Your task to perform on an android device: find photos in the google photos app Image 0: 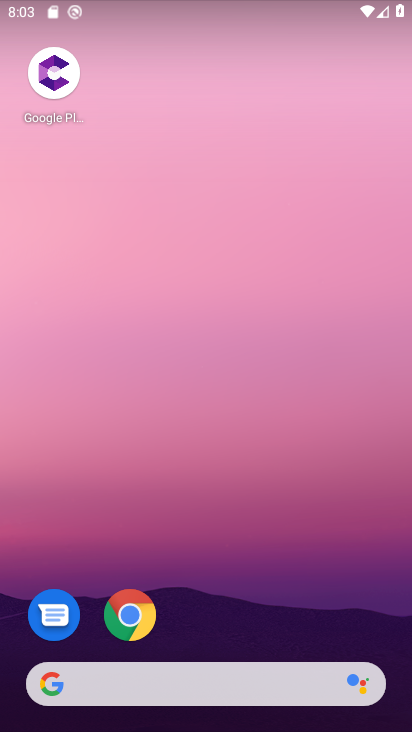
Step 0: drag from (252, 494) to (261, 227)
Your task to perform on an android device: find photos in the google photos app Image 1: 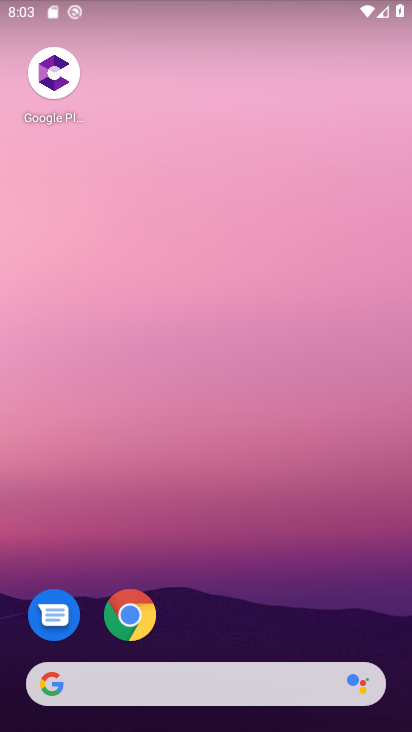
Step 1: drag from (238, 548) to (309, 74)
Your task to perform on an android device: find photos in the google photos app Image 2: 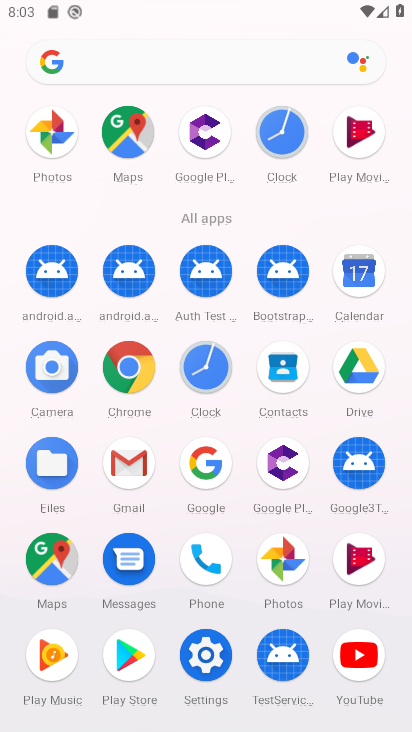
Step 2: click (57, 134)
Your task to perform on an android device: find photos in the google photos app Image 3: 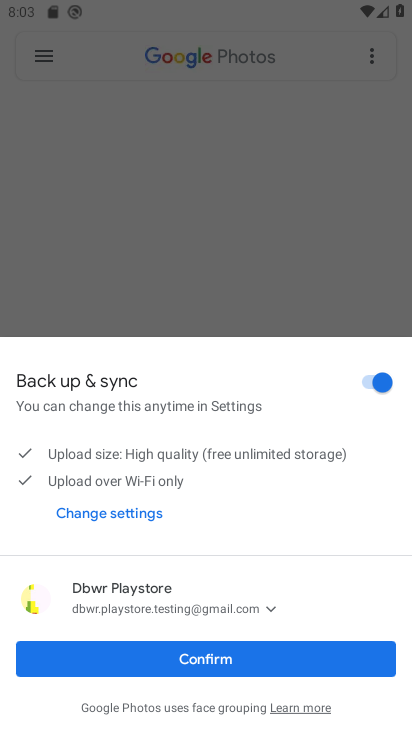
Step 3: click (233, 665)
Your task to perform on an android device: find photos in the google photos app Image 4: 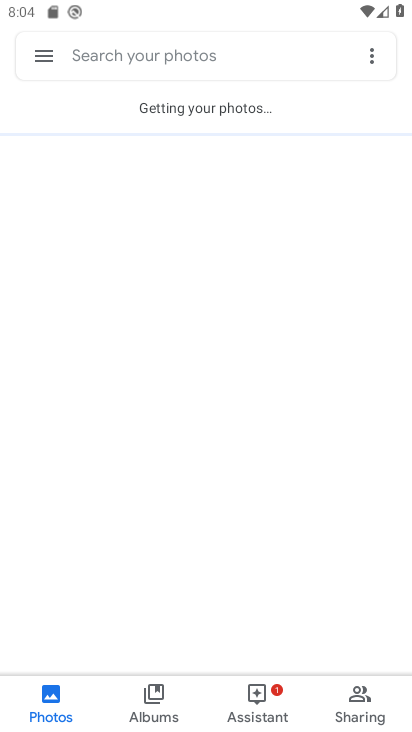
Step 4: click (158, 698)
Your task to perform on an android device: find photos in the google photos app Image 5: 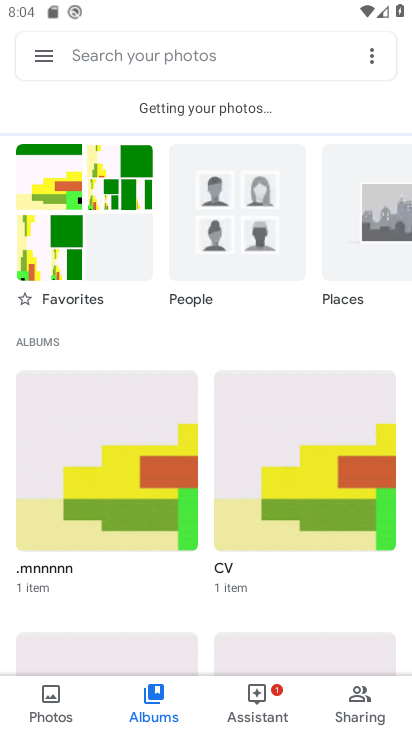
Step 5: click (46, 702)
Your task to perform on an android device: find photos in the google photos app Image 6: 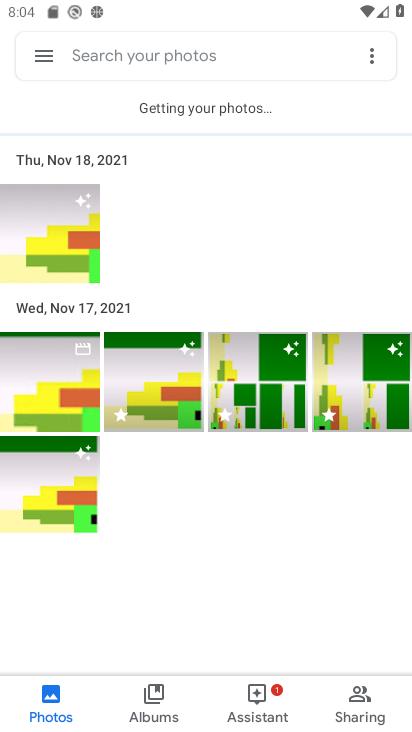
Step 6: task complete